Your task to perform on an android device: open a bookmark in the chrome app Image 0: 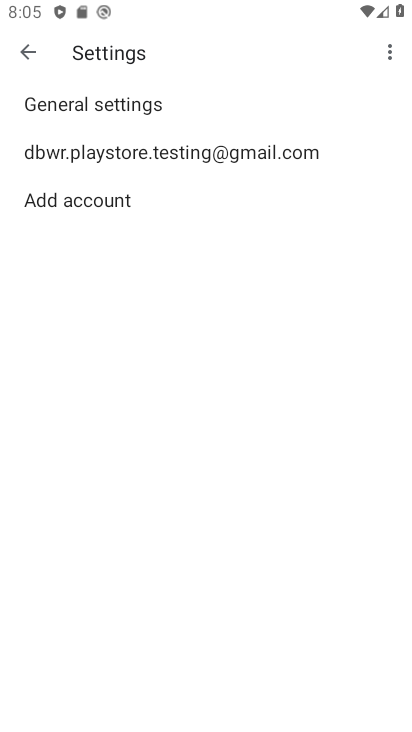
Step 0: press home button
Your task to perform on an android device: open a bookmark in the chrome app Image 1: 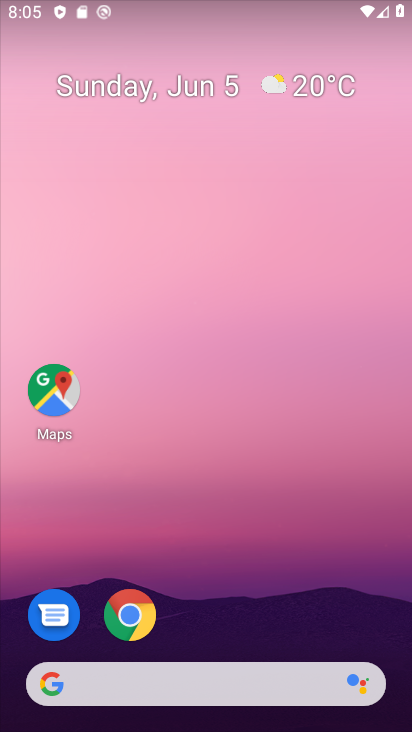
Step 1: click (145, 617)
Your task to perform on an android device: open a bookmark in the chrome app Image 2: 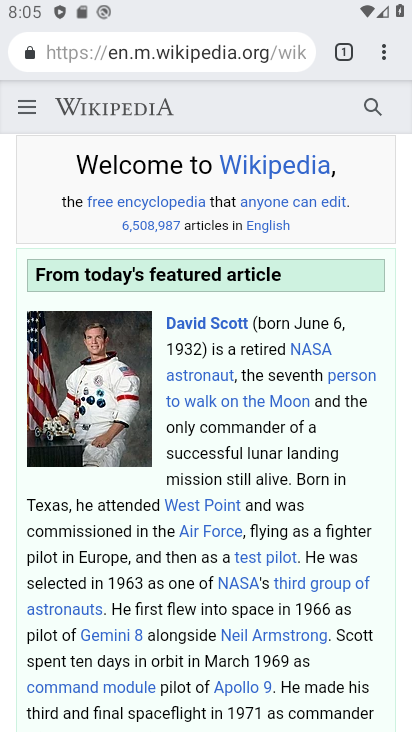
Step 2: click (384, 50)
Your task to perform on an android device: open a bookmark in the chrome app Image 3: 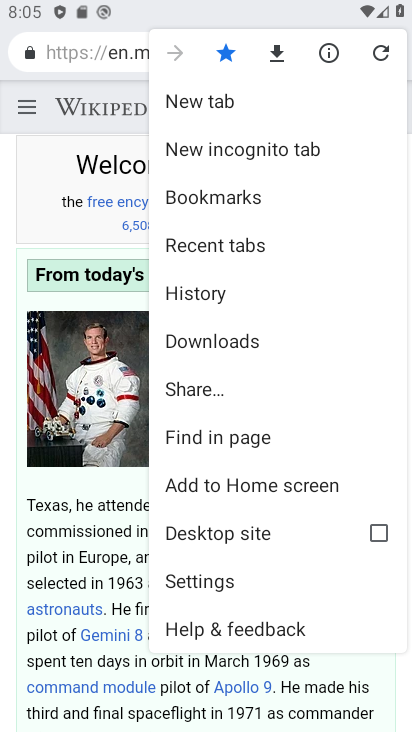
Step 3: click (237, 207)
Your task to perform on an android device: open a bookmark in the chrome app Image 4: 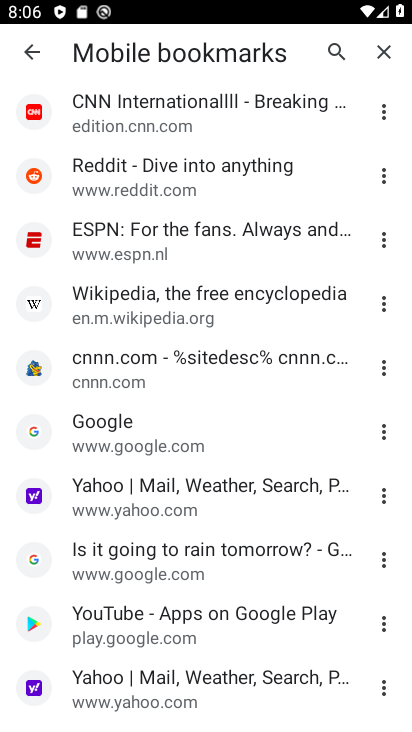
Step 4: click (126, 174)
Your task to perform on an android device: open a bookmark in the chrome app Image 5: 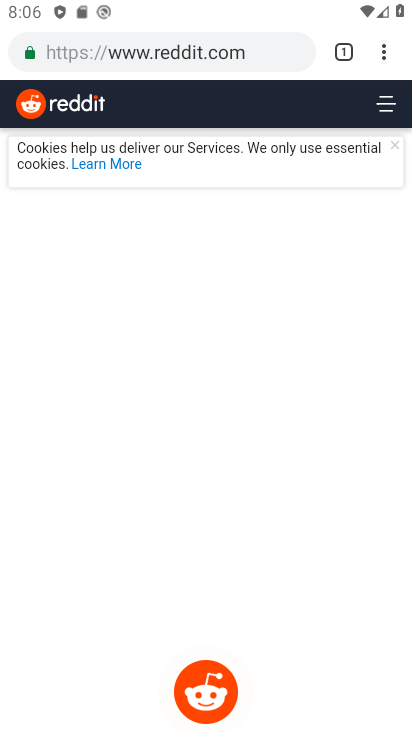
Step 5: task complete